Your task to perform on an android device: Open calendar and show me the first week of next month Image 0: 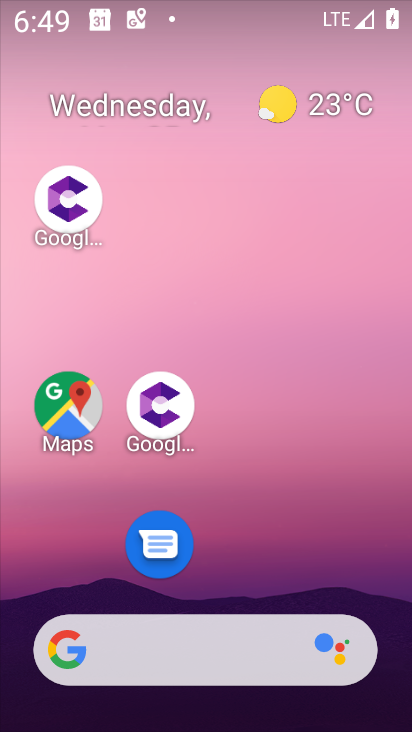
Step 0: drag from (269, 470) to (224, 55)
Your task to perform on an android device: Open calendar and show me the first week of next month Image 1: 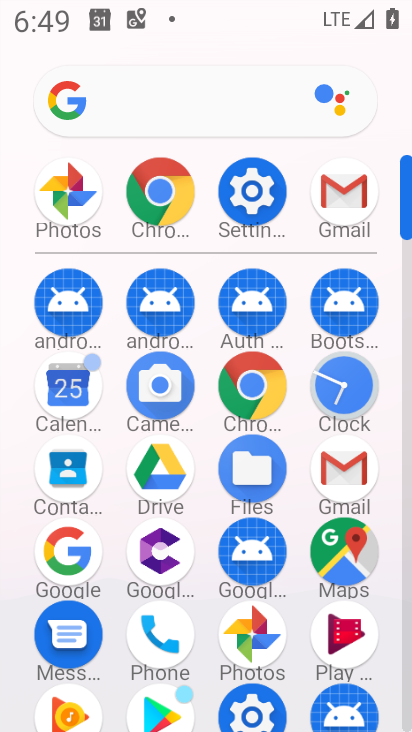
Step 1: click (66, 387)
Your task to perform on an android device: Open calendar and show me the first week of next month Image 2: 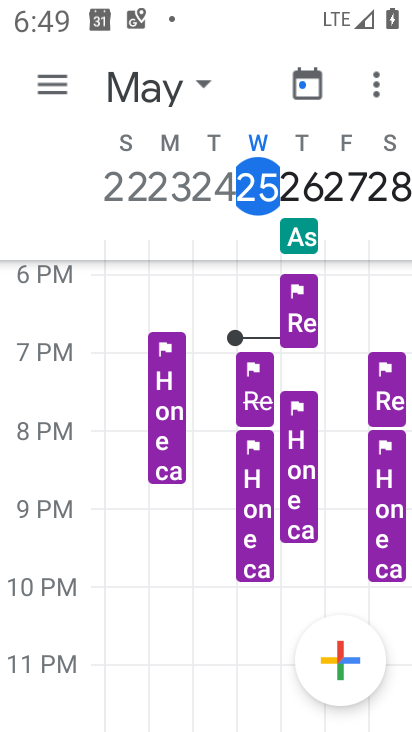
Step 2: click (200, 81)
Your task to perform on an android device: Open calendar and show me the first week of next month Image 3: 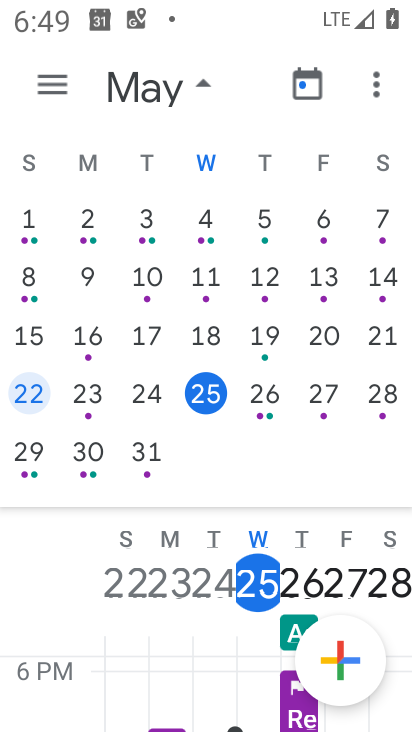
Step 3: task complete